Your task to perform on an android device: turn on location history Image 0: 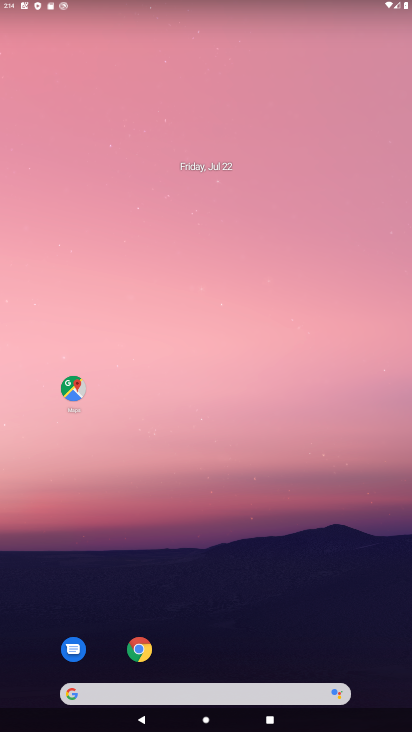
Step 0: drag from (214, 606) to (332, 0)
Your task to perform on an android device: turn on location history Image 1: 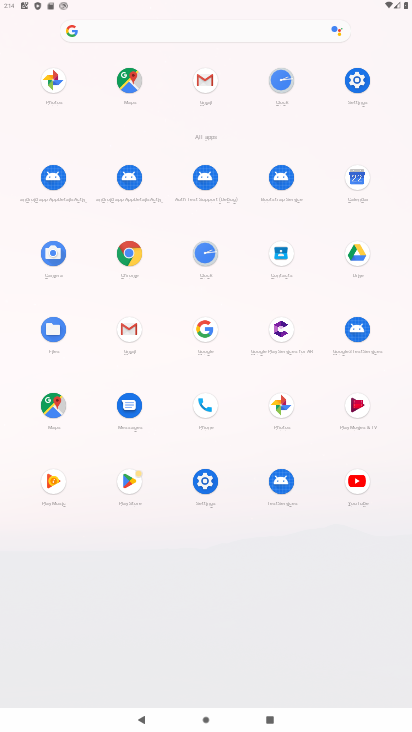
Step 1: click (204, 480)
Your task to perform on an android device: turn on location history Image 2: 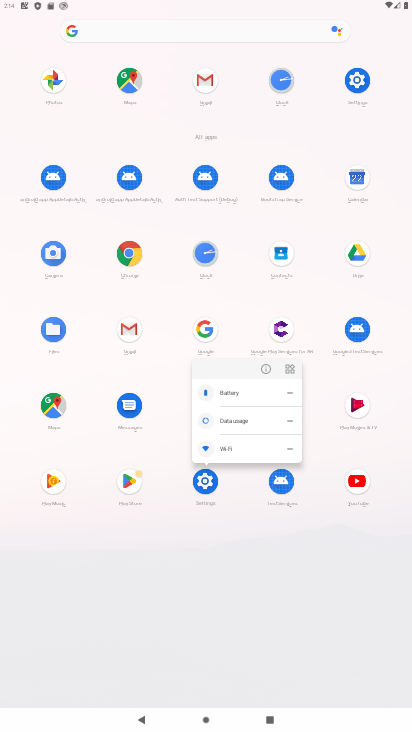
Step 2: click (263, 369)
Your task to perform on an android device: turn on location history Image 3: 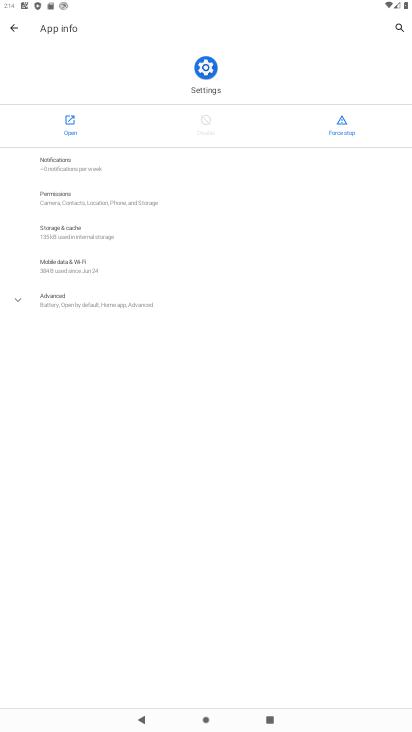
Step 3: click (70, 137)
Your task to perform on an android device: turn on location history Image 4: 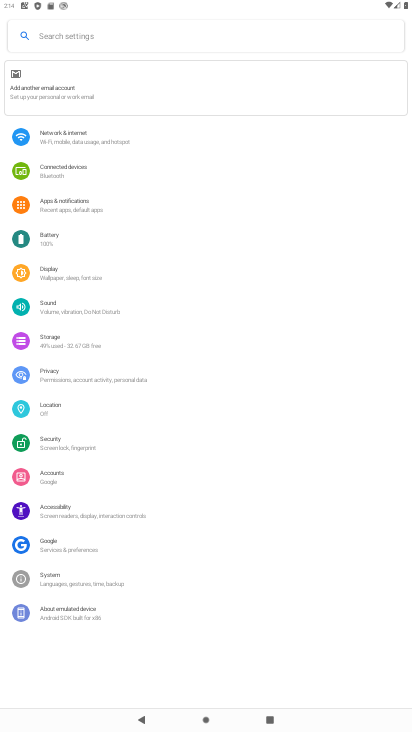
Step 4: click (67, 416)
Your task to perform on an android device: turn on location history Image 5: 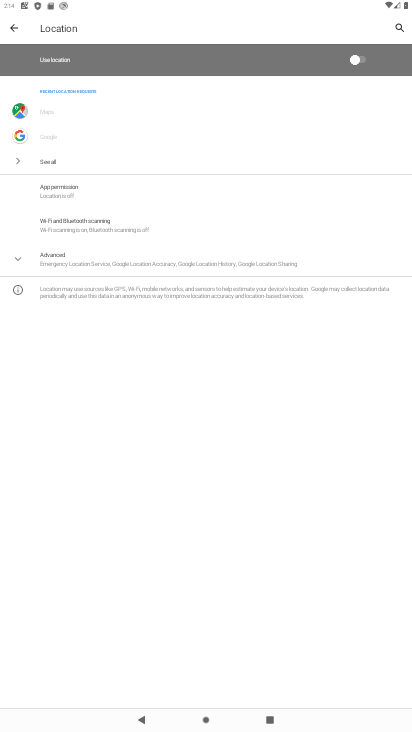
Step 5: click (331, 68)
Your task to perform on an android device: turn on location history Image 6: 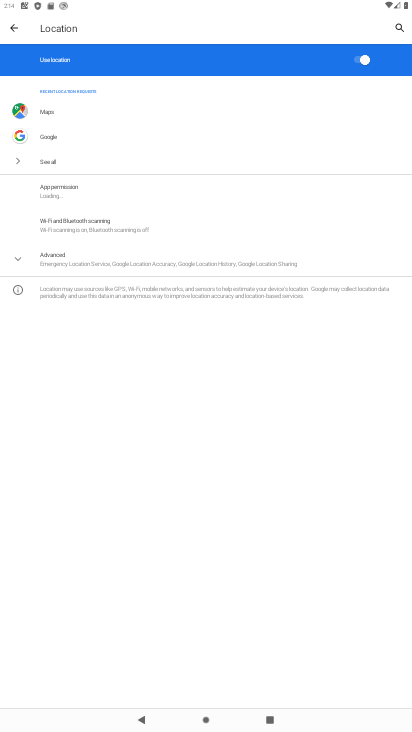
Step 6: click (341, 66)
Your task to perform on an android device: turn on location history Image 7: 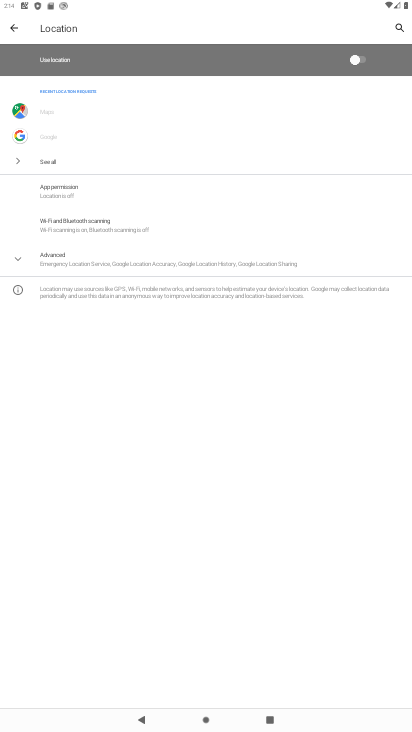
Step 7: click (19, 258)
Your task to perform on an android device: turn on location history Image 8: 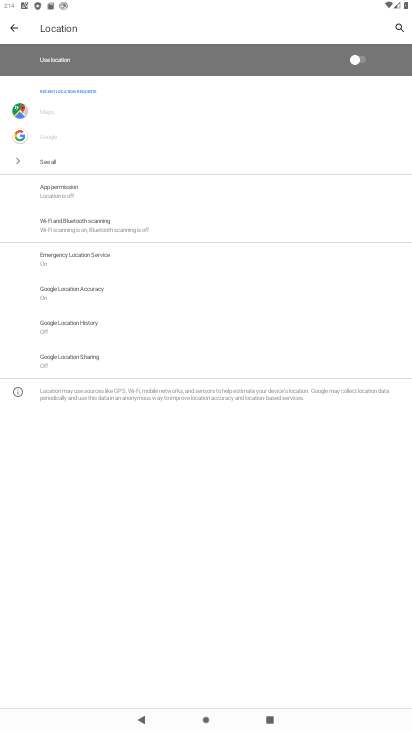
Step 8: click (123, 329)
Your task to perform on an android device: turn on location history Image 9: 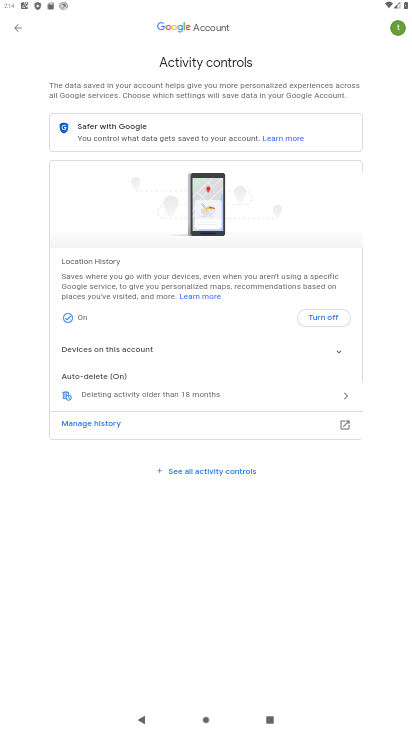
Step 9: task complete